Your task to perform on an android device: turn notification dots on Image 0: 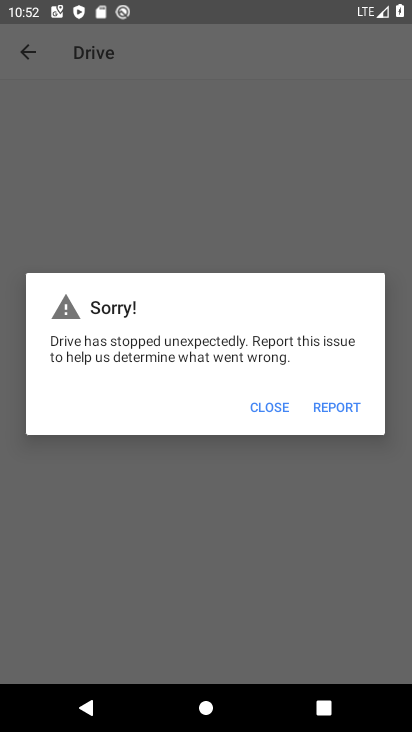
Step 0: press home button
Your task to perform on an android device: turn notification dots on Image 1: 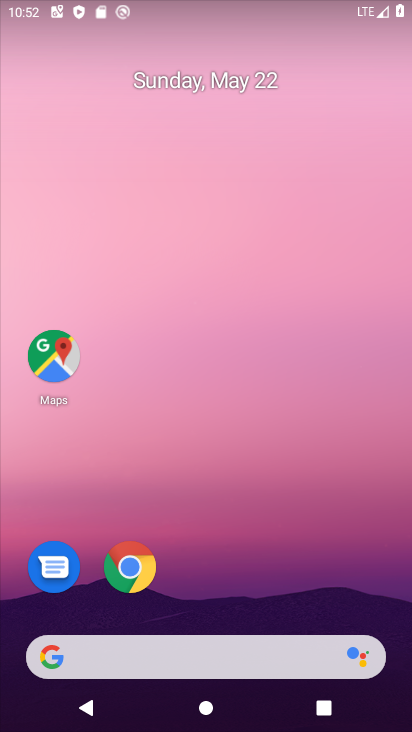
Step 1: drag from (225, 534) to (246, 9)
Your task to perform on an android device: turn notification dots on Image 2: 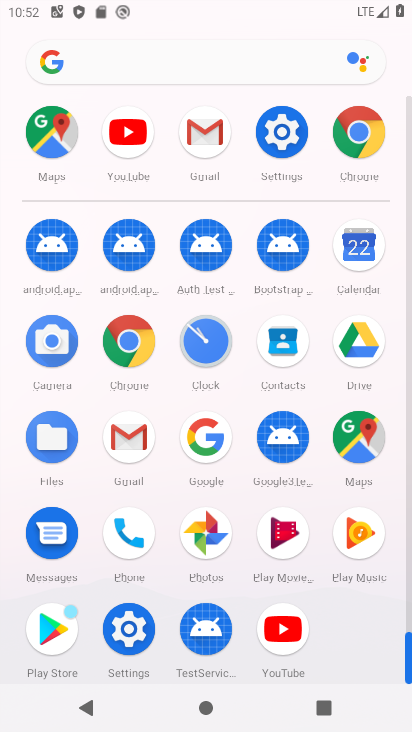
Step 2: click (281, 132)
Your task to perform on an android device: turn notification dots on Image 3: 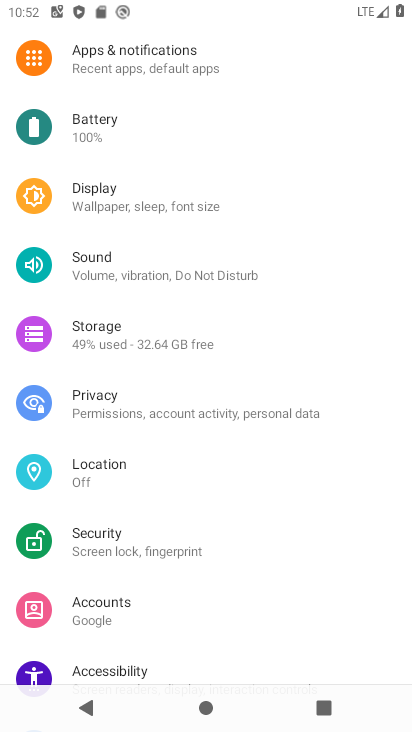
Step 3: drag from (281, 133) to (260, 474)
Your task to perform on an android device: turn notification dots on Image 4: 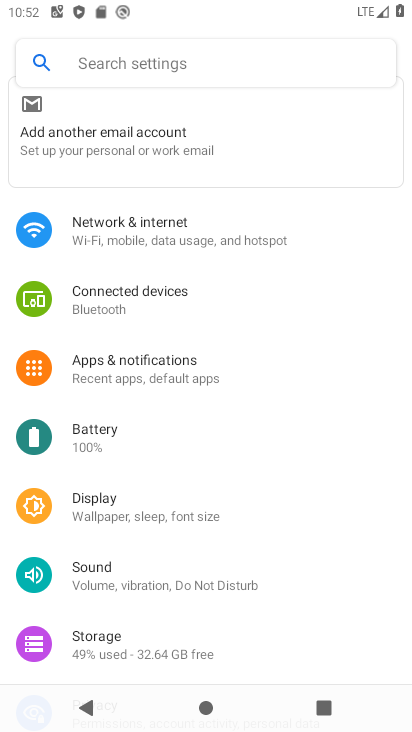
Step 4: click (181, 375)
Your task to perform on an android device: turn notification dots on Image 5: 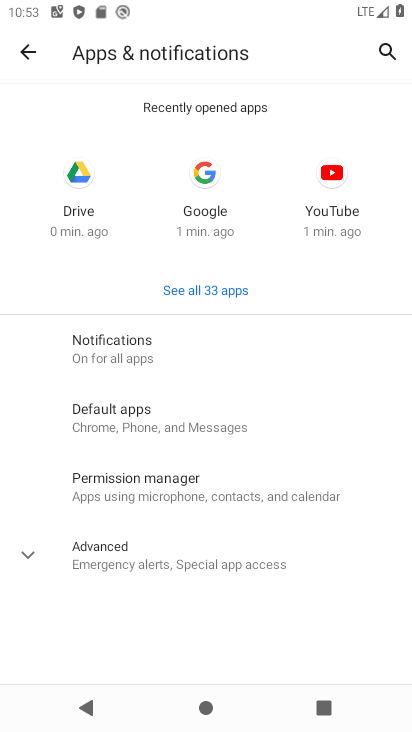
Step 5: click (17, 553)
Your task to perform on an android device: turn notification dots on Image 6: 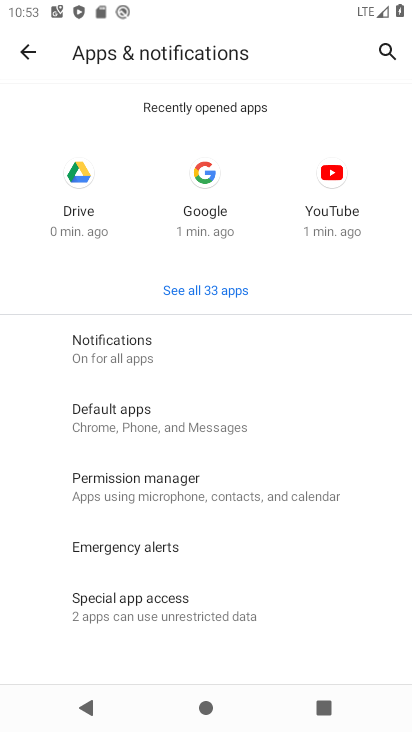
Step 6: click (167, 347)
Your task to perform on an android device: turn notification dots on Image 7: 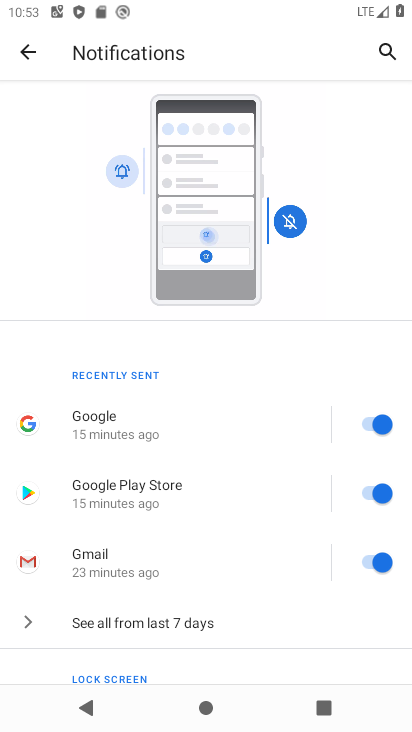
Step 7: drag from (213, 546) to (254, 66)
Your task to perform on an android device: turn notification dots on Image 8: 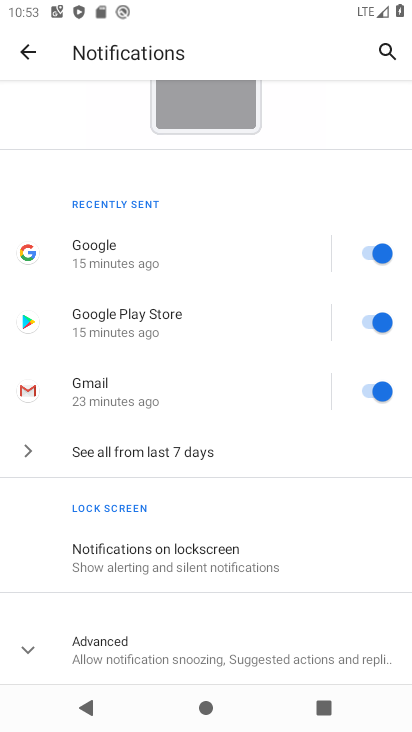
Step 8: click (127, 664)
Your task to perform on an android device: turn notification dots on Image 9: 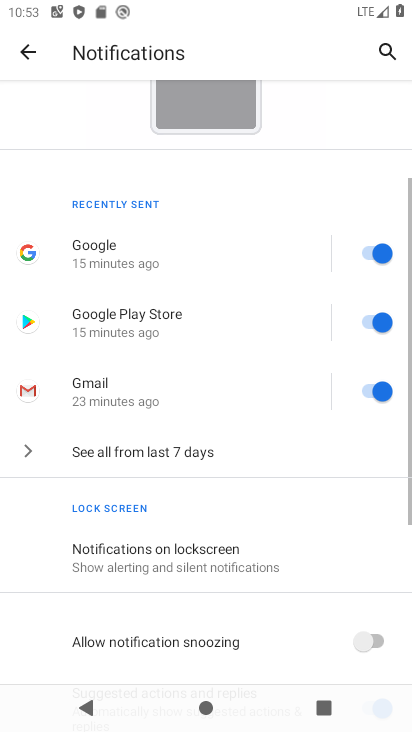
Step 9: task complete